Your task to perform on an android device: change the upload size in google photos Image 0: 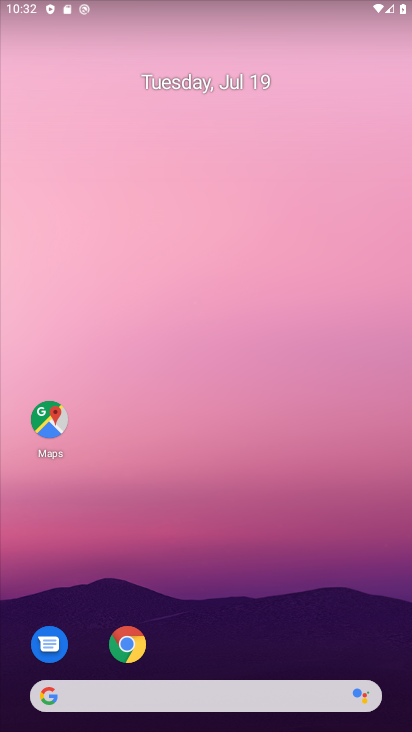
Step 0: drag from (284, 608) to (241, 196)
Your task to perform on an android device: change the upload size in google photos Image 1: 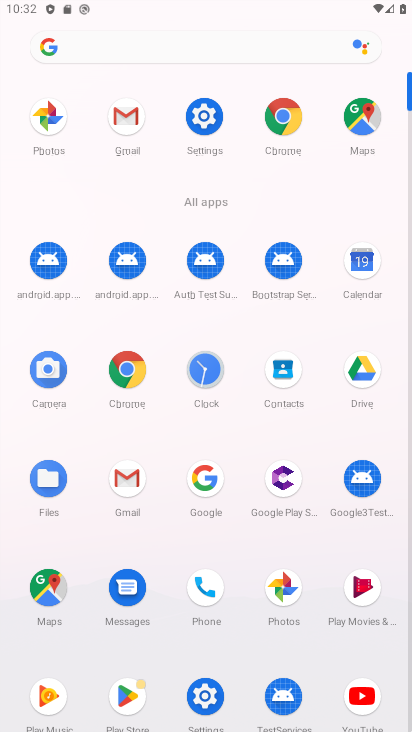
Step 1: click (45, 113)
Your task to perform on an android device: change the upload size in google photos Image 2: 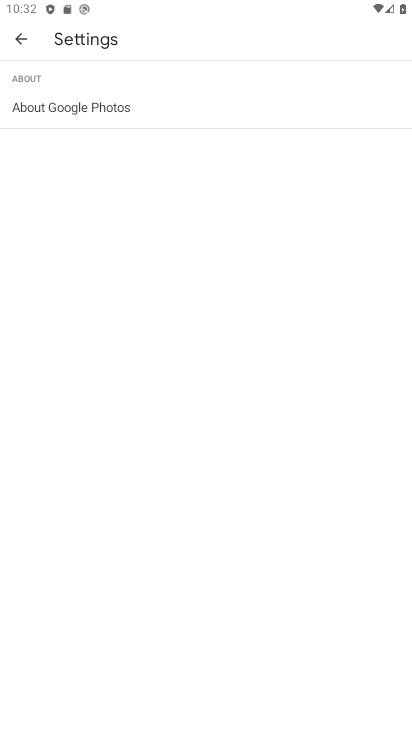
Step 2: click (17, 41)
Your task to perform on an android device: change the upload size in google photos Image 3: 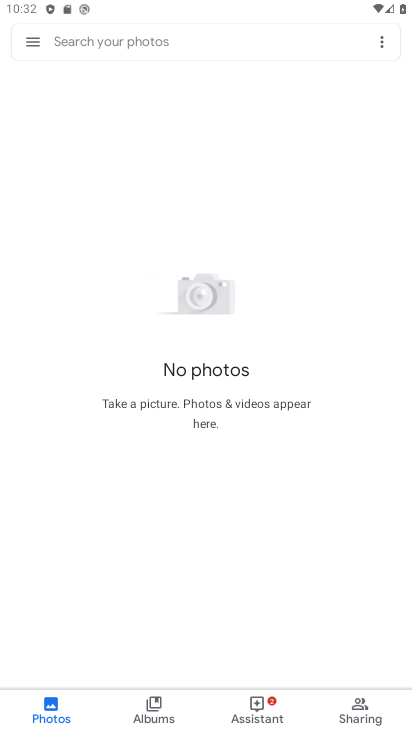
Step 3: click (32, 39)
Your task to perform on an android device: change the upload size in google photos Image 4: 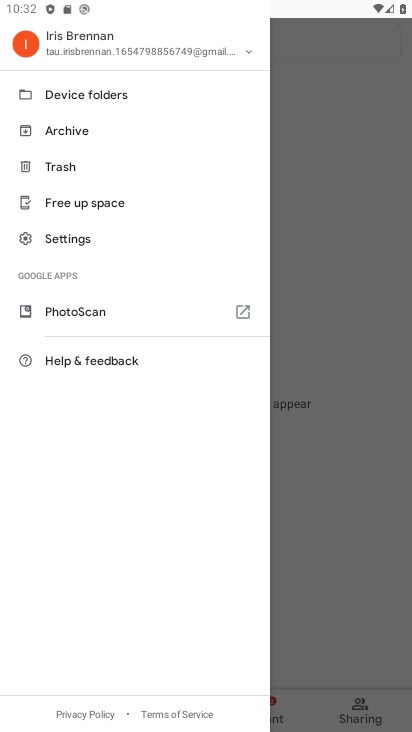
Step 4: click (72, 237)
Your task to perform on an android device: change the upload size in google photos Image 5: 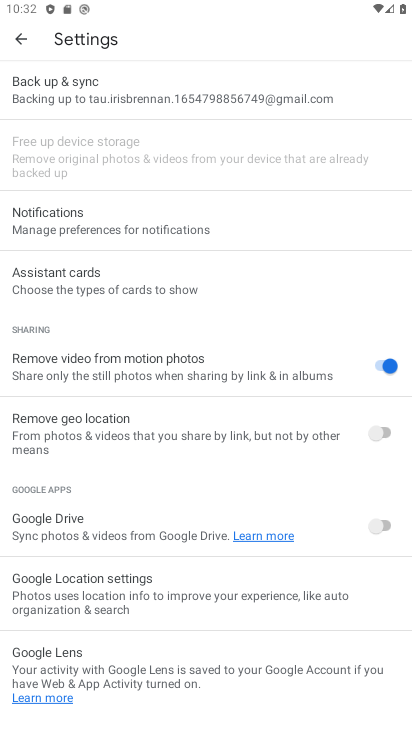
Step 5: click (62, 88)
Your task to perform on an android device: change the upload size in google photos Image 6: 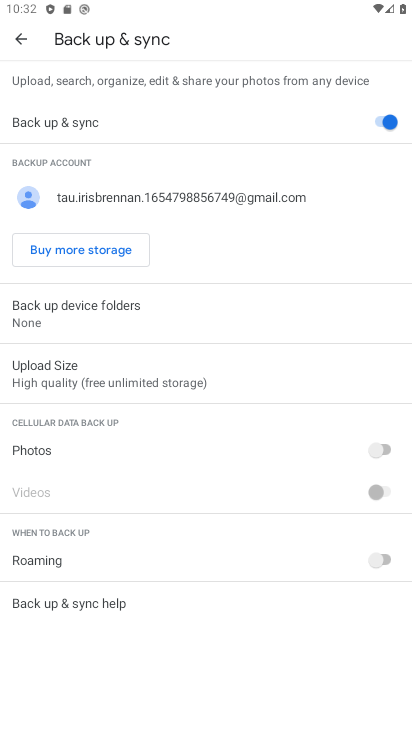
Step 6: click (56, 378)
Your task to perform on an android device: change the upload size in google photos Image 7: 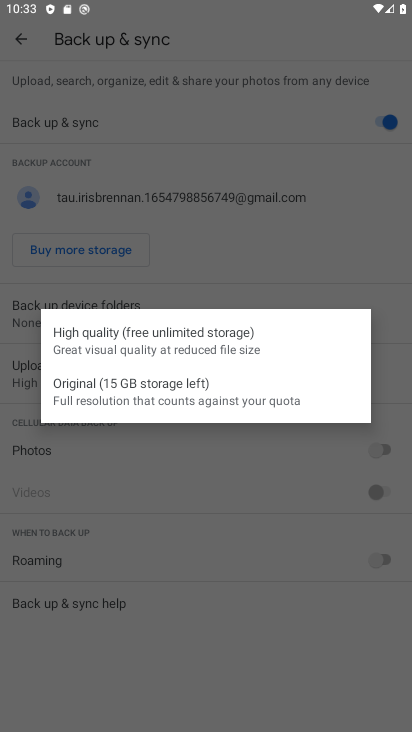
Step 7: task complete